Your task to perform on an android device: Show me the alarms in the clock app Image 0: 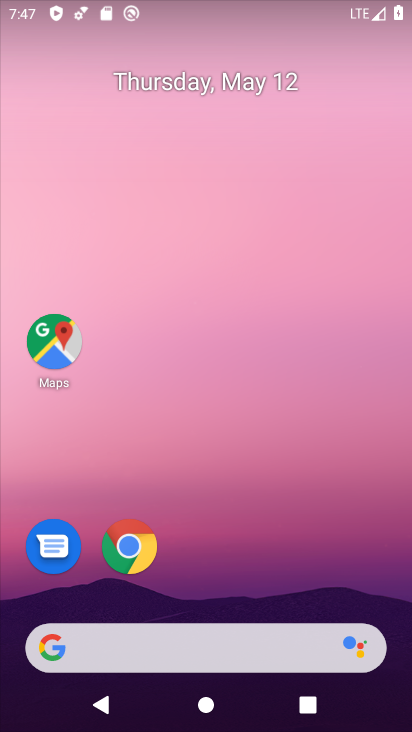
Step 0: drag from (234, 608) to (260, 51)
Your task to perform on an android device: Show me the alarms in the clock app Image 1: 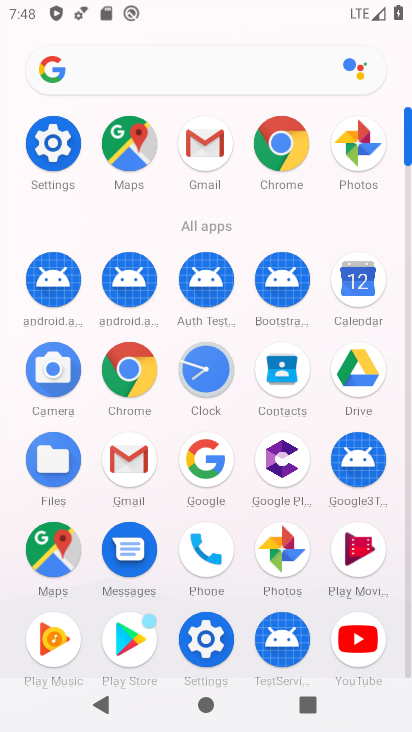
Step 1: click (215, 368)
Your task to perform on an android device: Show me the alarms in the clock app Image 2: 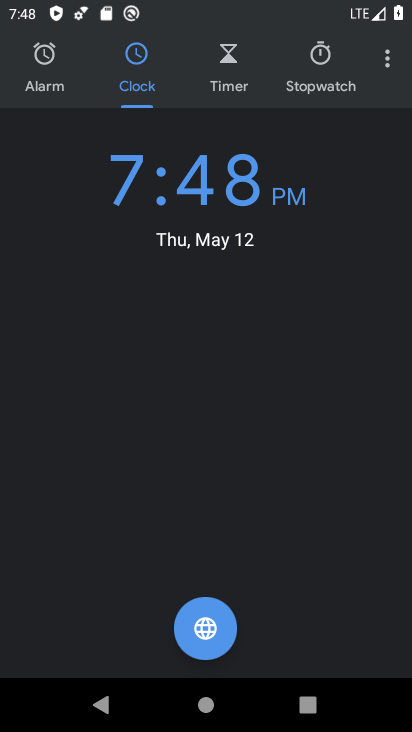
Step 2: click (58, 59)
Your task to perform on an android device: Show me the alarms in the clock app Image 3: 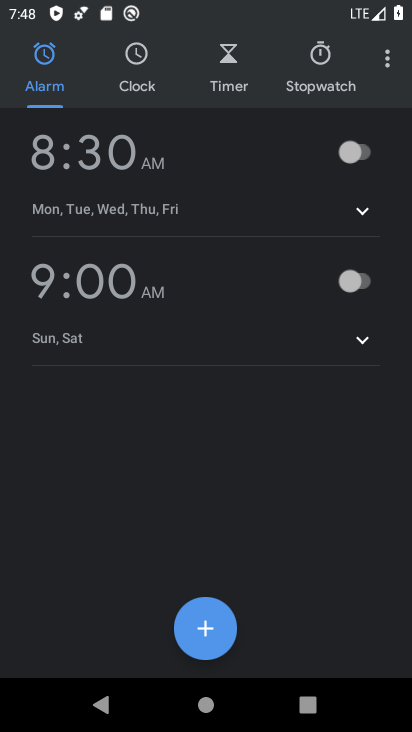
Step 3: task complete